Your task to perform on an android device: delete a single message in the gmail app Image 0: 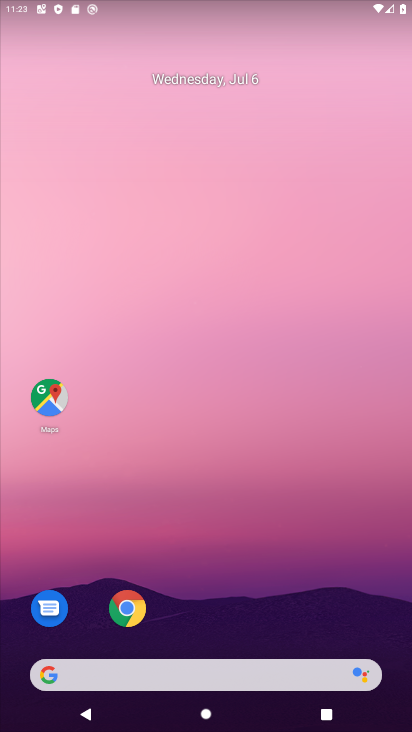
Step 0: drag from (290, 597) to (406, 45)
Your task to perform on an android device: delete a single message in the gmail app Image 1: 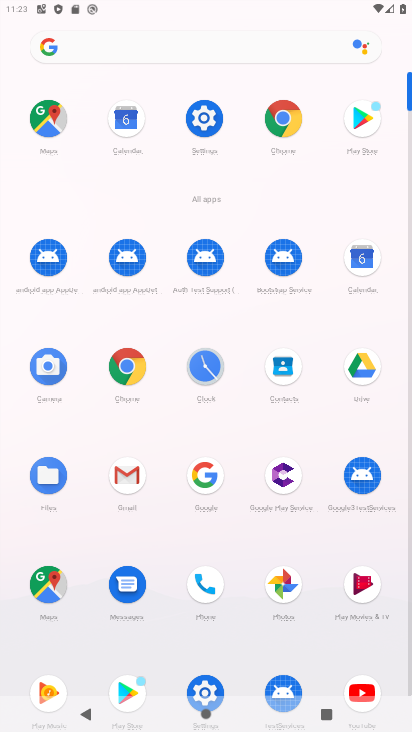
Step 1: click (122, 468)
Your task to perform on an android device: delete a single message in the gmail app Image 2: 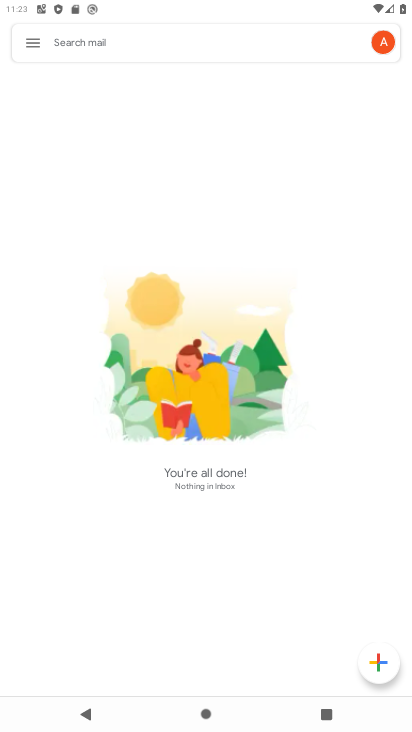
Step 2: task complete